Your task to perform on an android device: Show me the alarms in the clock app Image 0: 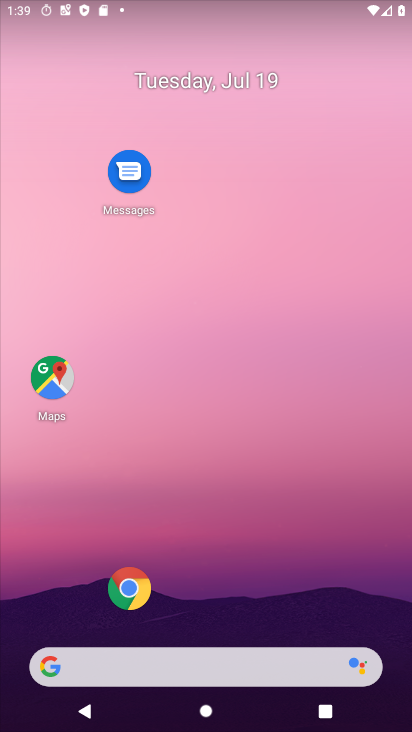
Step 0: drag from (51, 683) to (151, 295)
Your task to perform on an android device: Show me the alarms in the clock app Image 1: 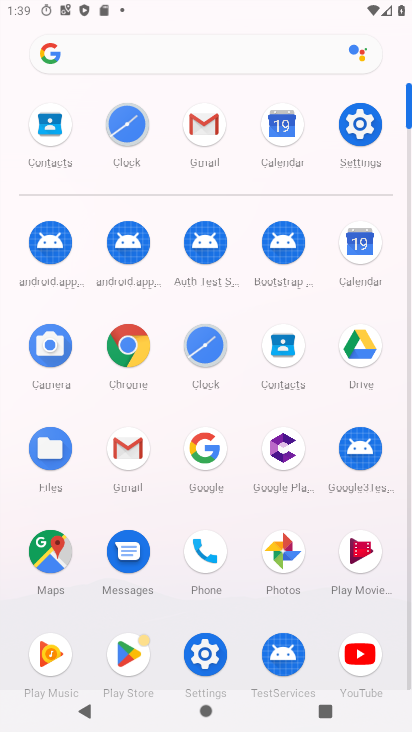
Step 1: click (210, 342)
Your task to perform on an android device: Show me the alarms in the clock app Image 2: 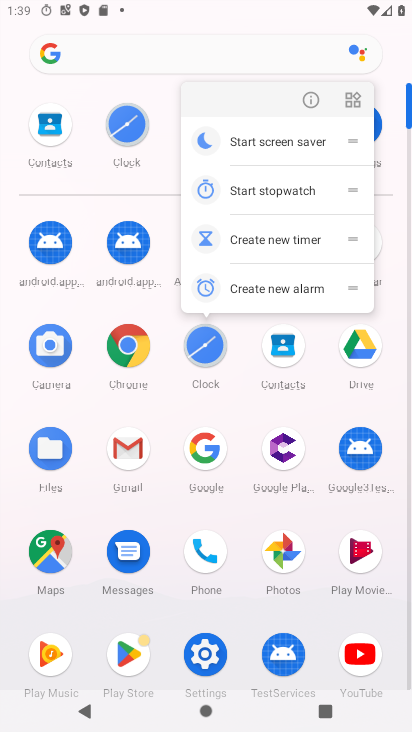
Step 2: click (196, 359)
Your task to perform on an android device: Show me the alarms in the clock app Image 3: 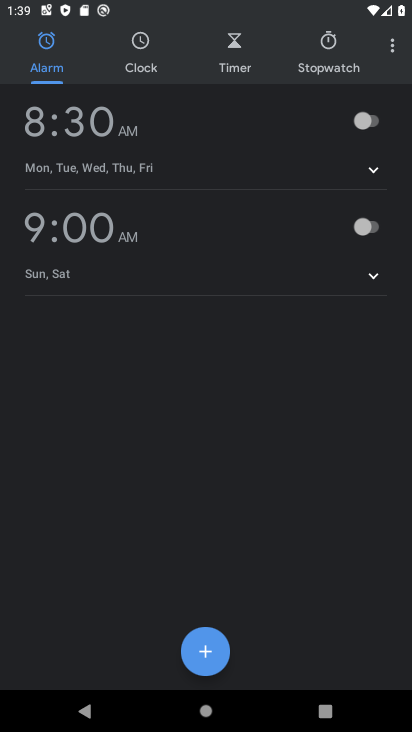
Step 3: task complete